Your task to perform on an android device: Open wifi settings Image 0: 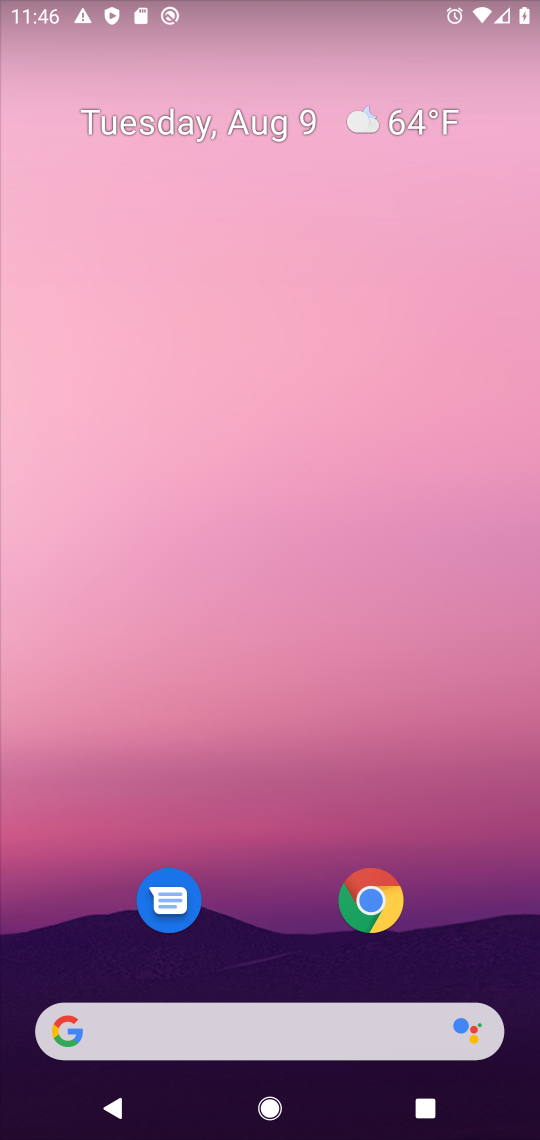
Step 0: drag from (267, 917) to (341, 42)
Your task to perform on an android device: Open wifi settings Image 1: 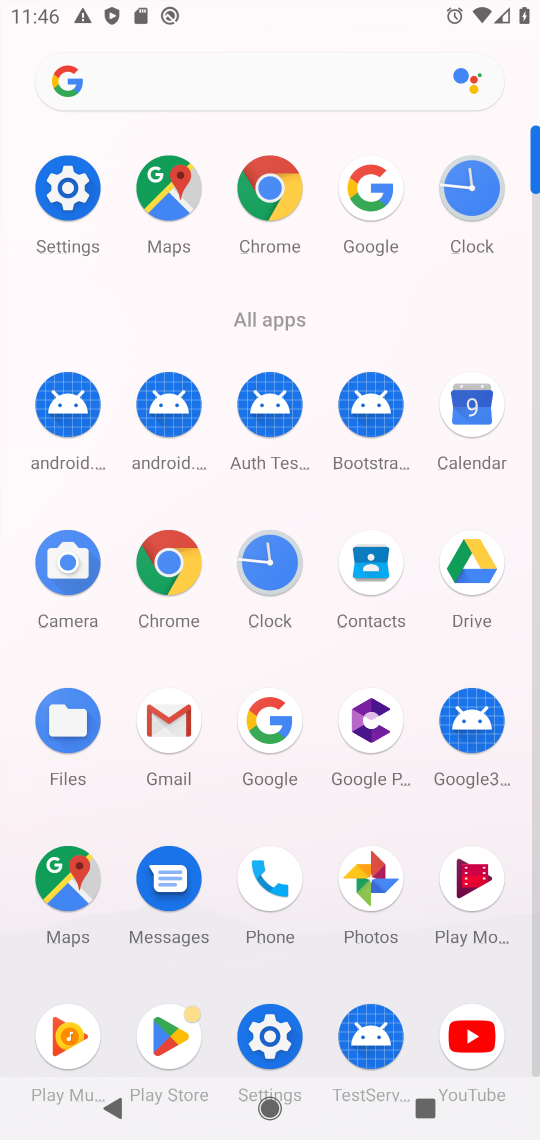
Step 1: click (83, 181)
Your task to perform on an android device: Open wifi settings Image 2: 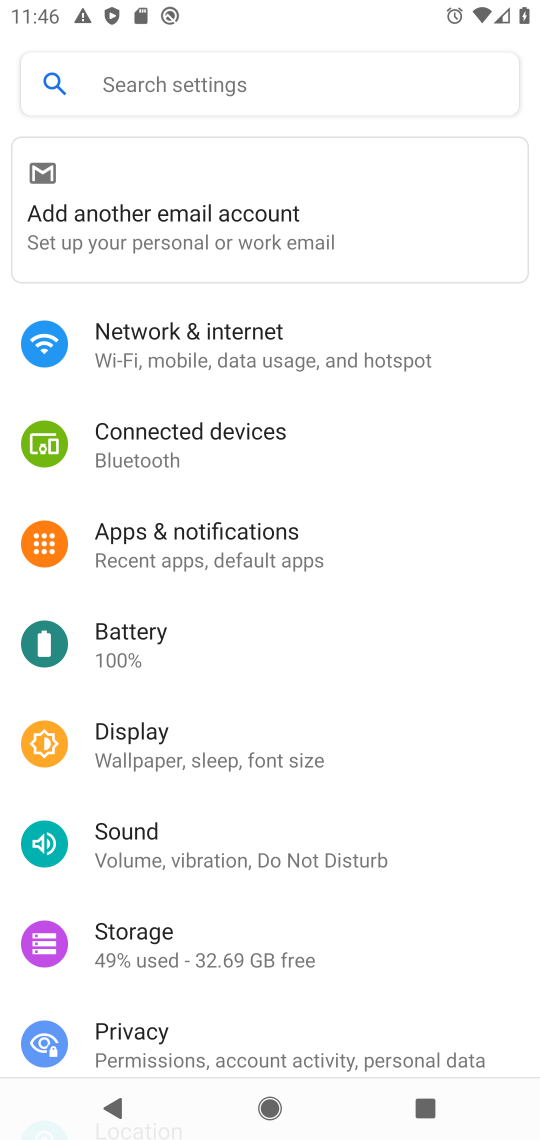
Step 2: click (186, 348)
Your task to perform on an android device: Open wifi settings Image 3: 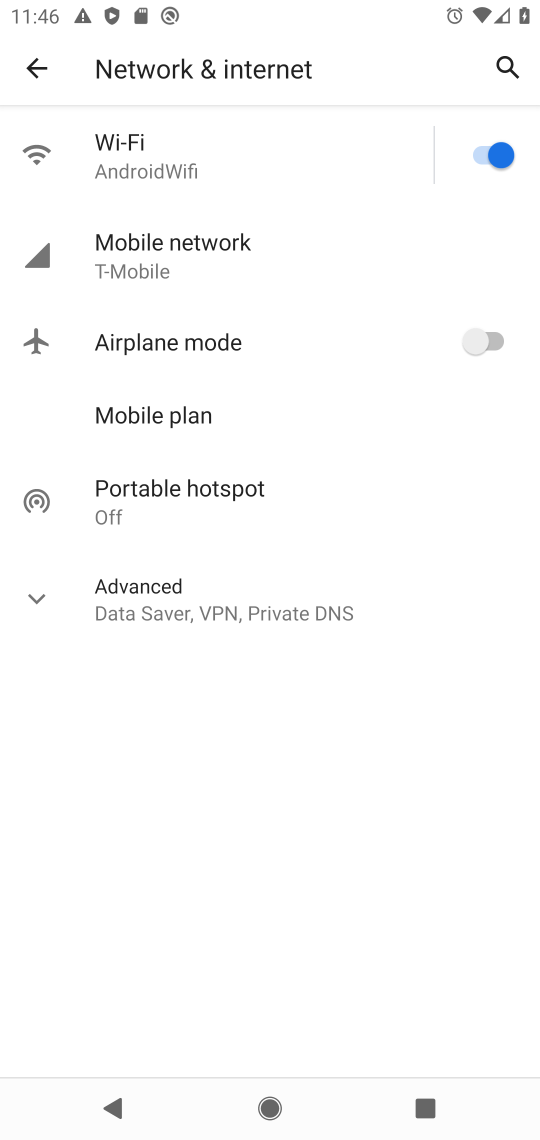
Step 3: click (175, 154)
Your task to perform on an android device: Open wifi settings Image 4: 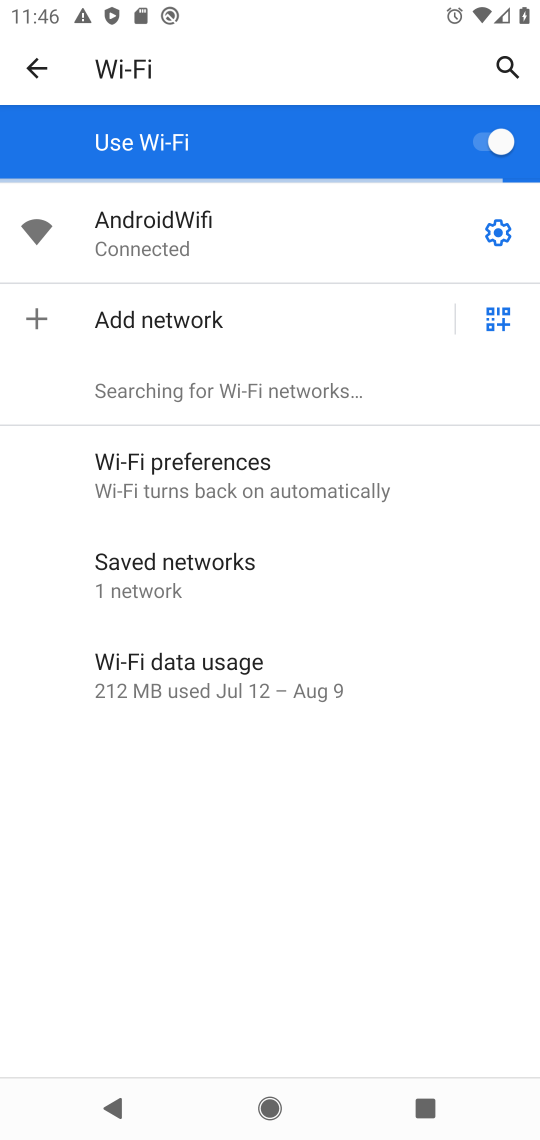
Step 4: task complete